Your task to perform on an android device: toggle location history Image 0: 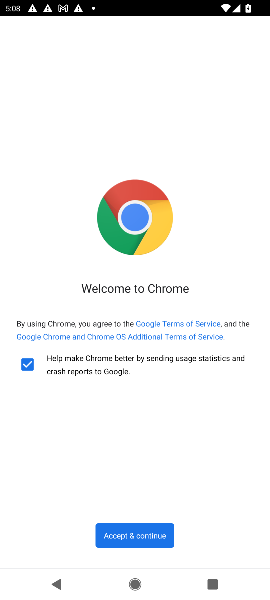
Step 0: press back button
Your task to perform on an android device: toggle location history Image 1: 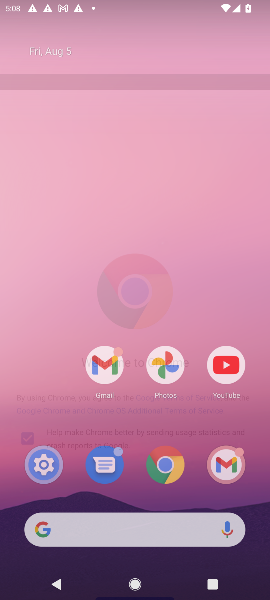
Step 1: press home button
Your task to perform on an android device: toggle location history Image 2: 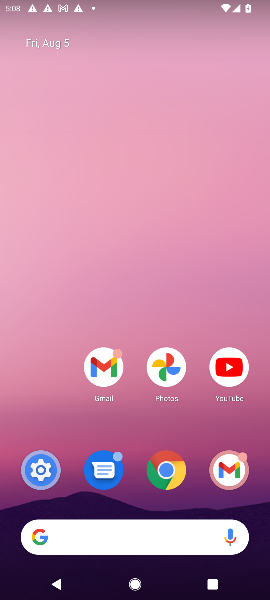
Step 2: drag from (113, 509) to (133, 30)
Your task to perform on an android device: toggle location history Image 3: 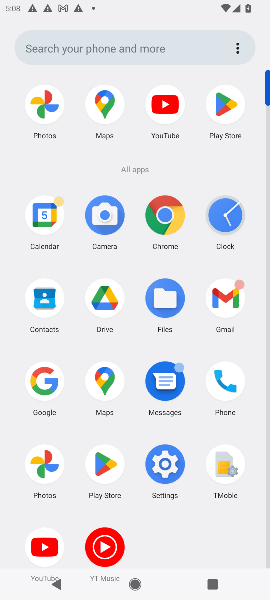
Step 3: click (167, 475)
Your task to perform on an android device: toggle location history Image 4: 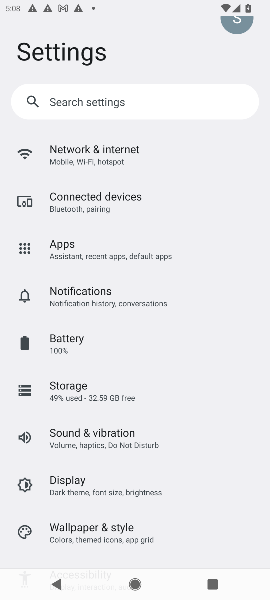
Step 4: drag from (151, 487) to (135, 75)
Your task to perform on an android device: toggle location history Image 5: 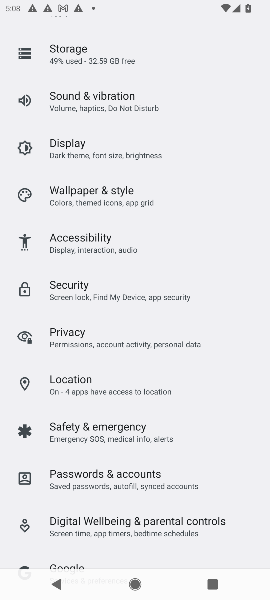
Step 5: click (59, 380)
Your task to perform on an android device: toggle location history Image 6: 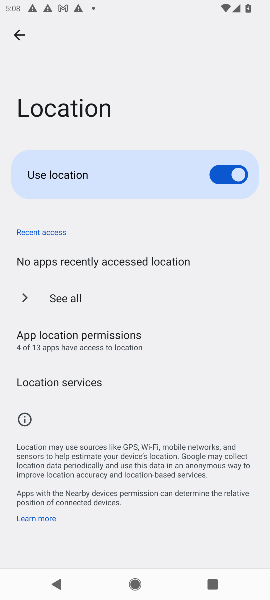
Step 6: click (50, 377)
Your task to perform on an android device: toggle location history Image 7: 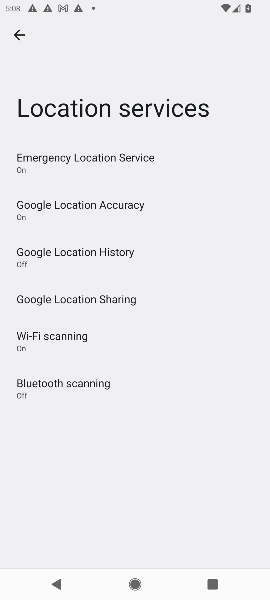
Step 7: click (65, 241)
Your task to perform on an android device: toggle location history Image 8: 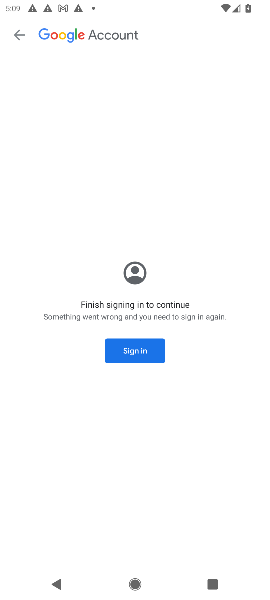
Step 8: task complete